Your task to perform on an android device: Show me productivity apps on the Play Store Image 0: 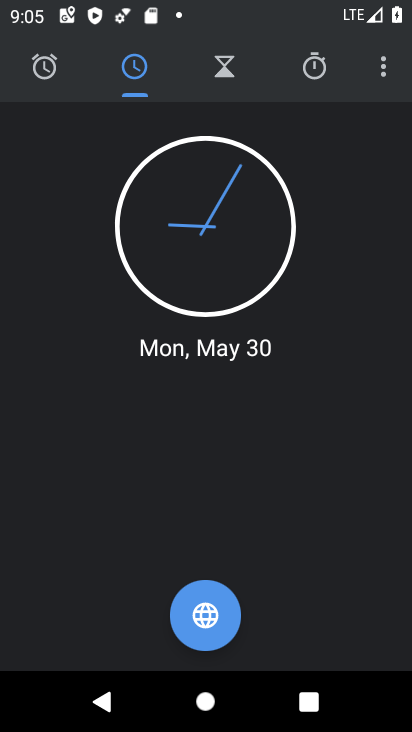
Step 0: press home button
Your task to perform on an android device: Show me productivity apps on the Play Store Image 1: 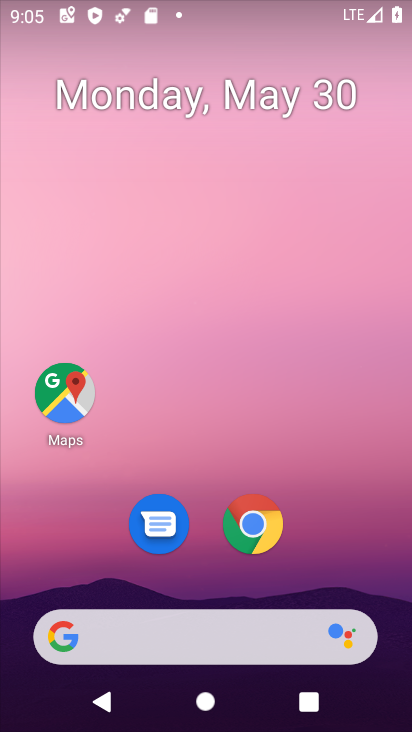
Step 1: drag from (331, 531) to (307, 1)
Your task to perform on an android device: Show me productivity apps on the Play Store Image 2: 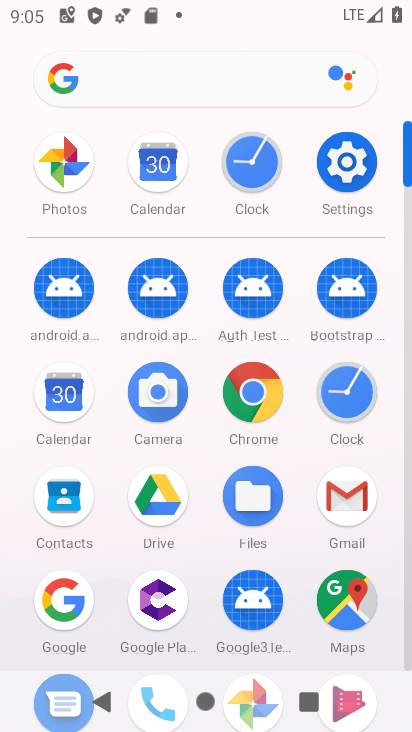
Step 2: drag from (101, 552) to (112, 370)
Your task to perform on an android device: Show me productivity apps on the Play Store Image 3: 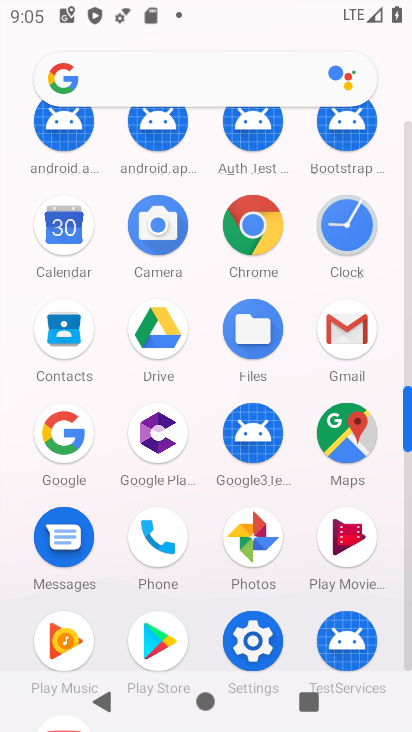
Step 3: click (162, 631)
Your task to perform on an android device: Show me productivity apps on the Play Store Image 4: 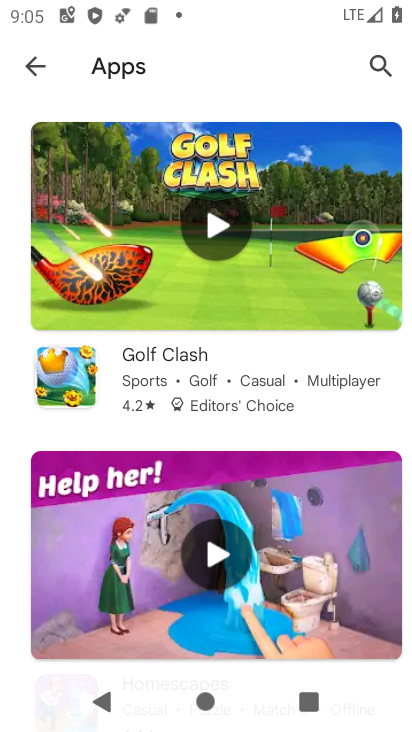
Step 4: click (33, 58)
Your task to perform on an android device: Show me productivity apps on the Play Store Image 5: 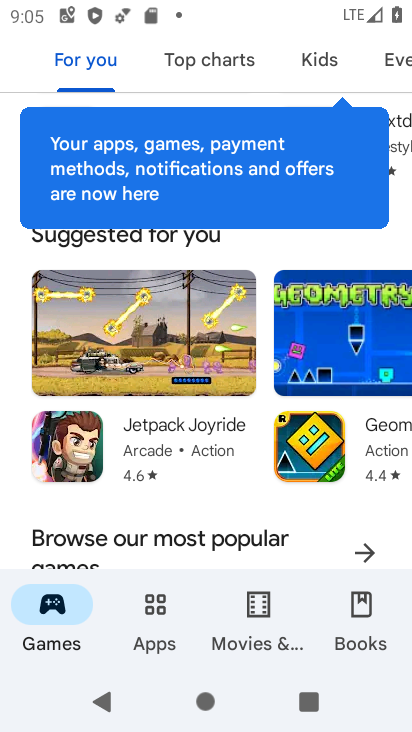
Step 5: click (156, 603)
Your task to perform on an android device: Show me productivity apps on the Play Store Image 6: 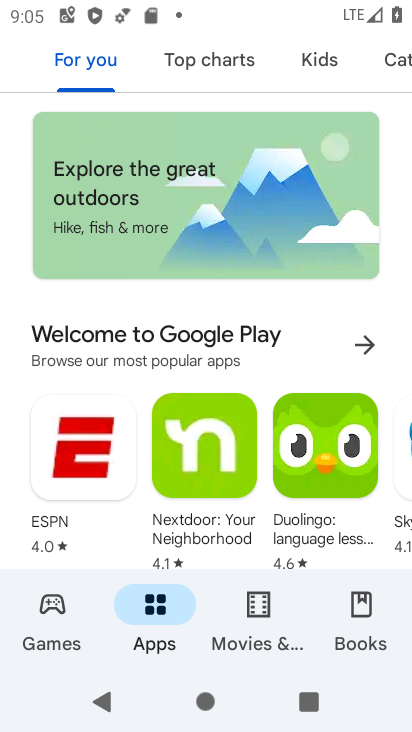
Step 6: click (395, 58)
Your task to perform on an android device: Show me productivity apps on the Play Store Image 7: 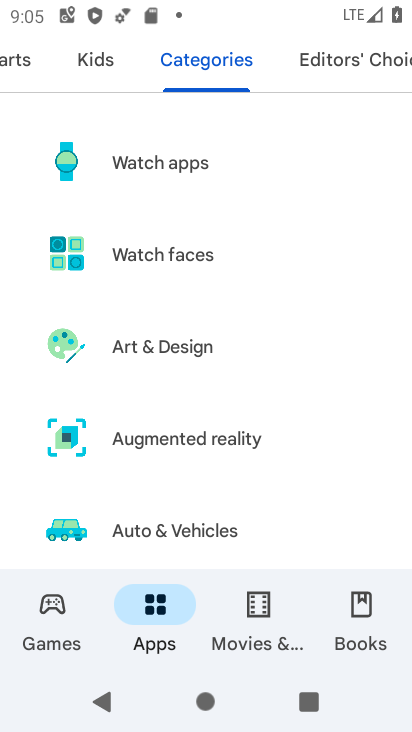
Step 7: drag from (274, 512) to (270, 113)
Your task to perform on an android device: Show me productivity apps on the Play Store Image 8: 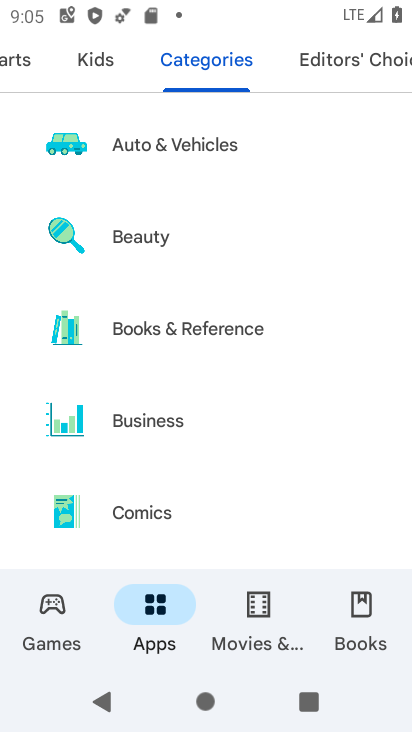
Step 8: drag from (259, 512) to (245, 115)
Your task to perform on an android device: Show me productivity apps on the Play Store Image 9: 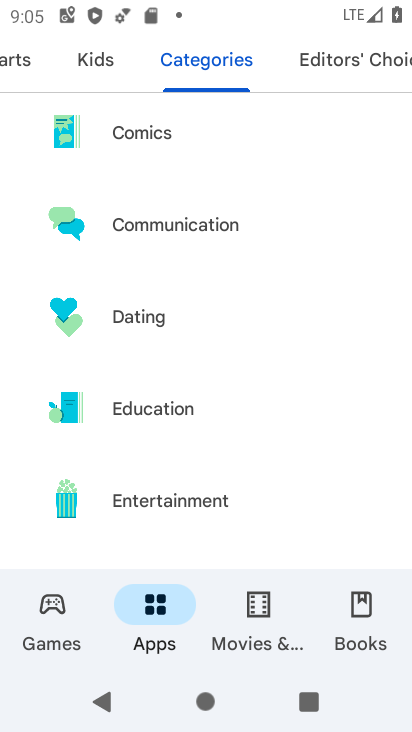
Step 9: drag from (261, 512) to (253, 126)
Your task to perform on an android device: Show me productivity apps on the Play Store Image 10: 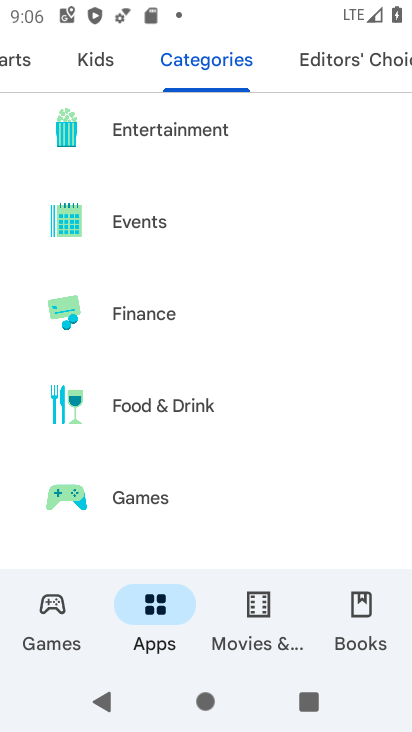
Step 10: drag from (244, 469) to (263, 108)
Your task to perform on an android device: Show me productivity apps on the Play Store Image 11: 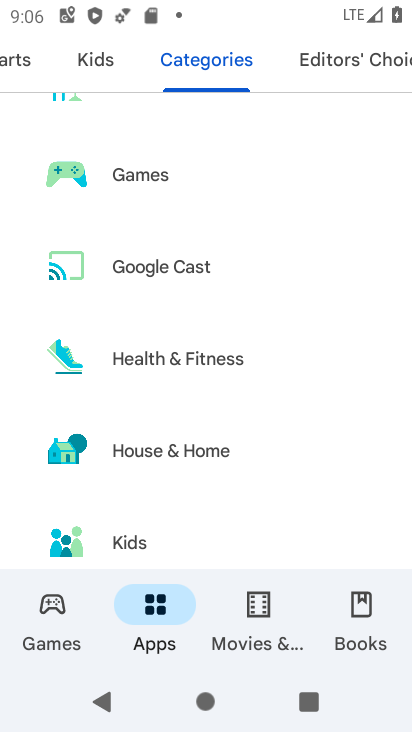
Step 11: drag from (272, 504) to (294, 155)
Your task to perform on an android device: Show me productivity apps on the Play Store Image 12: 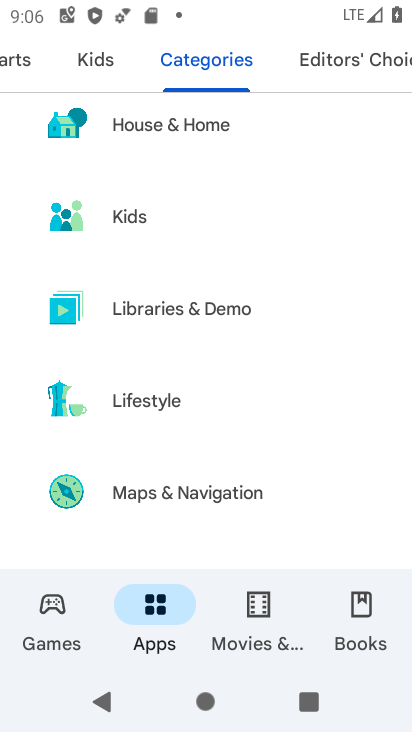
Step 12: drag from (274, 523) to (288, 125)
Your task to perform on an android device: Show me productivity apps on the Play Store Image 13: 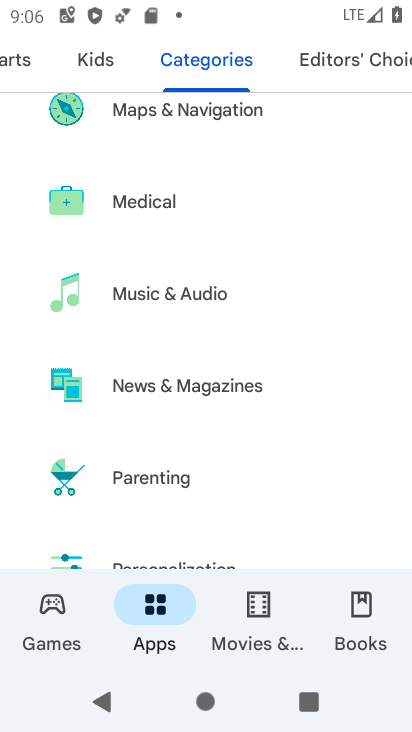
Step 13: drag from (222, 440) to (208, 126)
Your task to perform on an android device: Show me productivity apps on the Play Store Image 14: 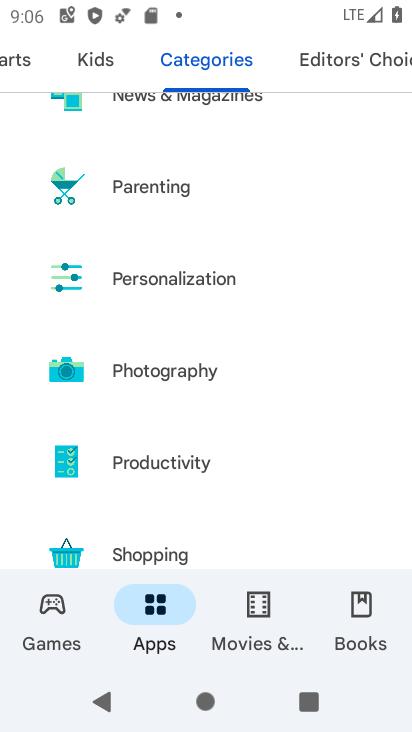
Step 14: click (185, 455)
Your task to perform on an android device: Show me productivity apps on the Play Store Image 15: 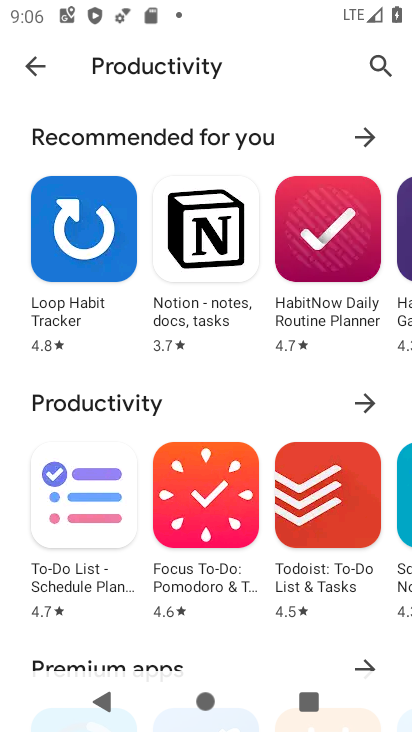
Step 15: click (366, 404)
Your task to perform on an android device: Show me productivity apps on the Play Store Image 16: 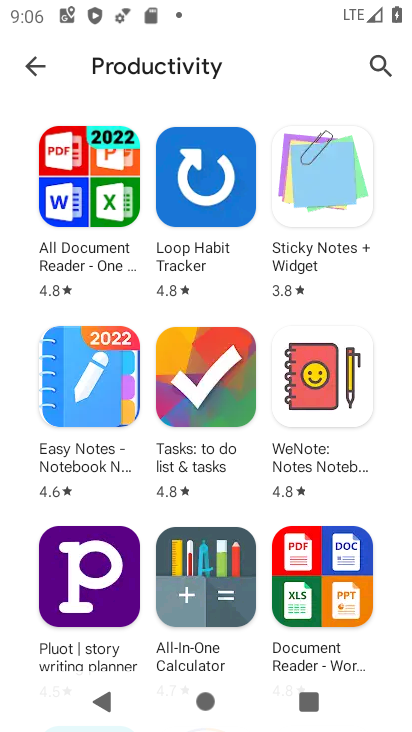
Step 16: task complete